Your task to perform on an android device: toggle airplane mode Image 0: 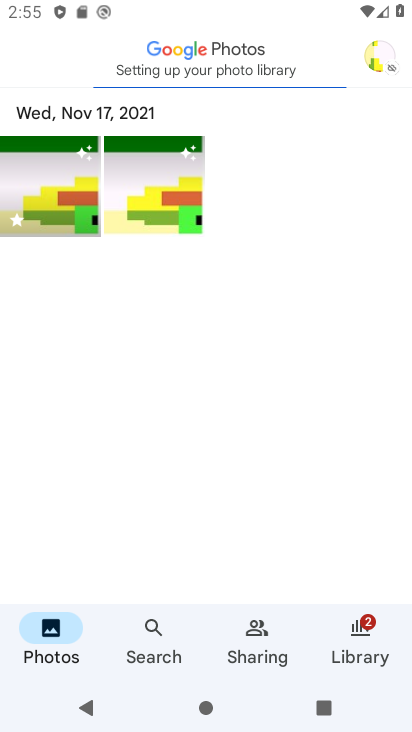
Step 0: press home button
Your task to perform on an android device: toggle airplane mode Image 1: 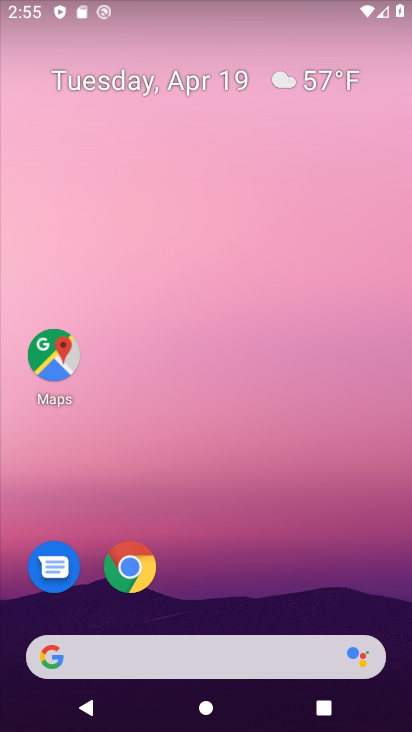
Step 1: drag from (368, 571) to (352, 117)
Your task to perform on an android device: toggle airplane mode Image 2: 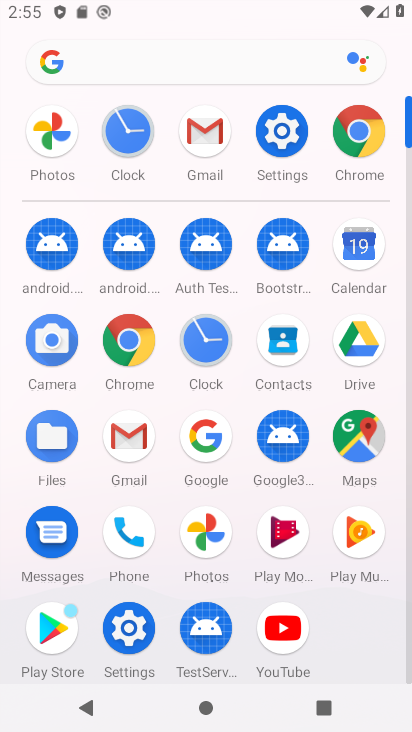
Step 2: click (293, 118)
Your task to perform on an android device: toggle airplane mode Image 3: 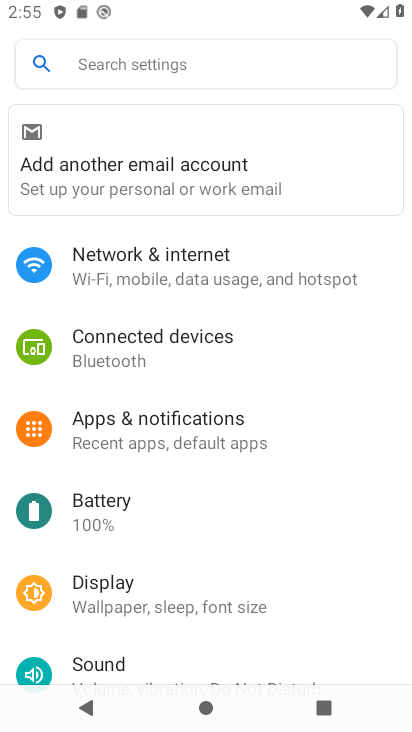
Step 3: click (295, 280)
Your task to perform on an android device: toggle airplane mode Image 4: 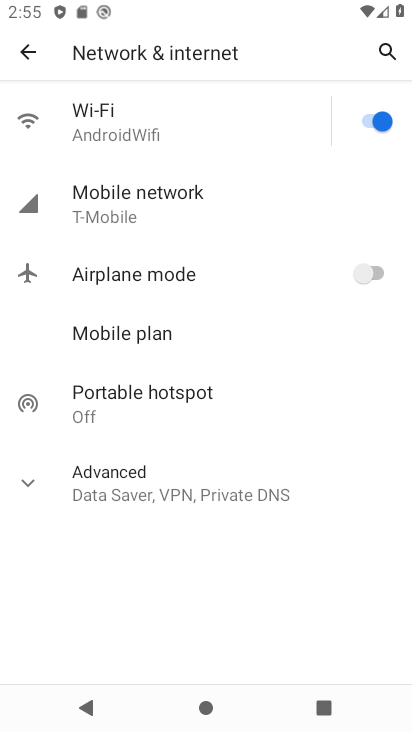
Step 4: click (351, 267)
Your task to perform on an android device: toggle airplane mode Image 5: 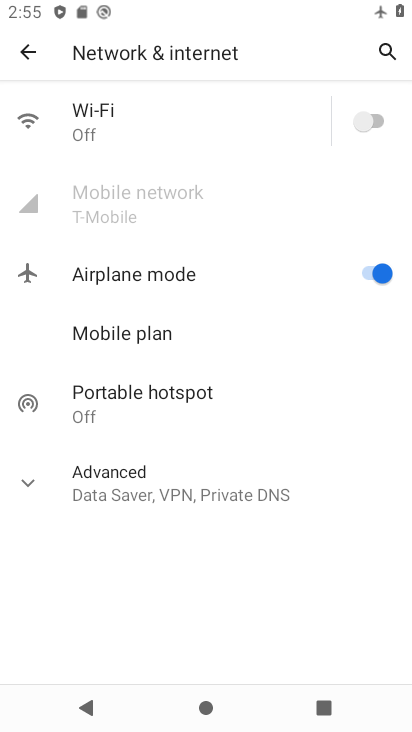
Step 5: task complete